Your task to perform on an android device: Open Wikipedia Image 0: 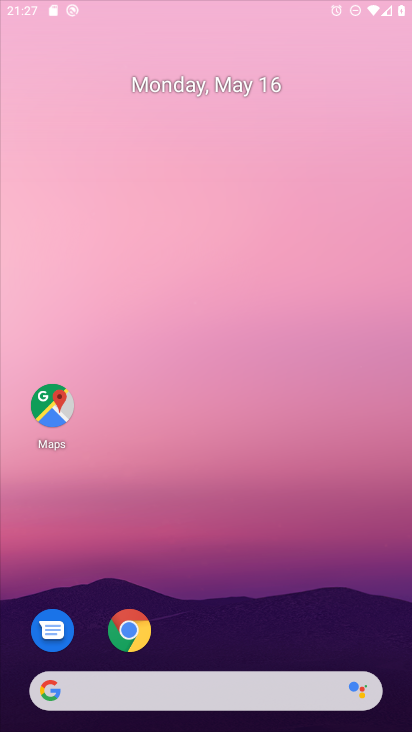
Step 0: click (326, 244)
Your task to perform on an android device: Open Wikipedia Image 1: 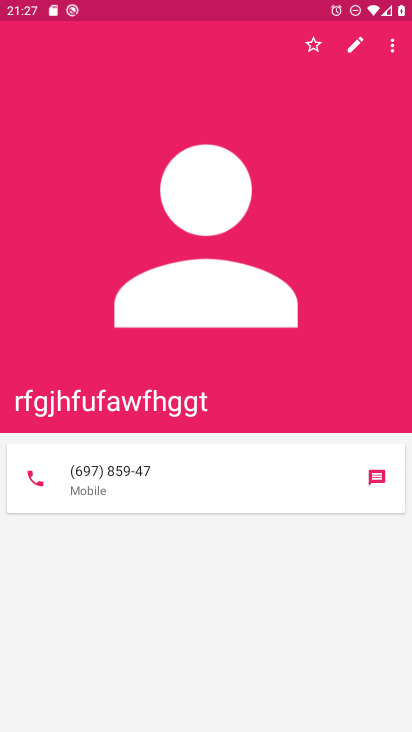
Step 1: press home button
Your task to perform on an android device: Open Wikipedia Image 2: 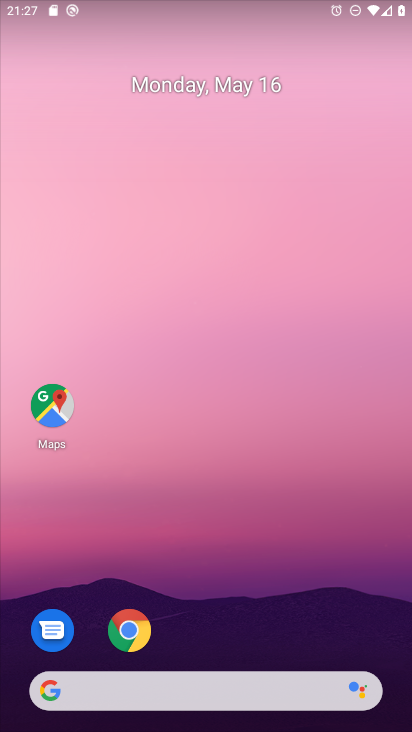
Step 2: click (126, 625)
Your task to perform on an android device: Open Wikipedia Image 3: 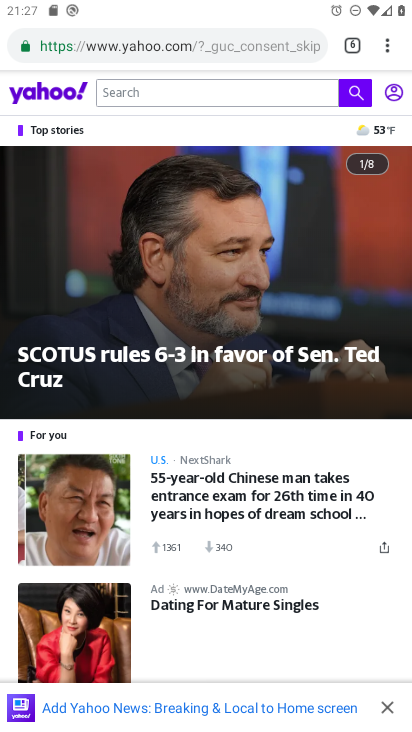
Step 3: click (347, 43)
Your task to perform on an android device: Open Wikipedia Image 4: 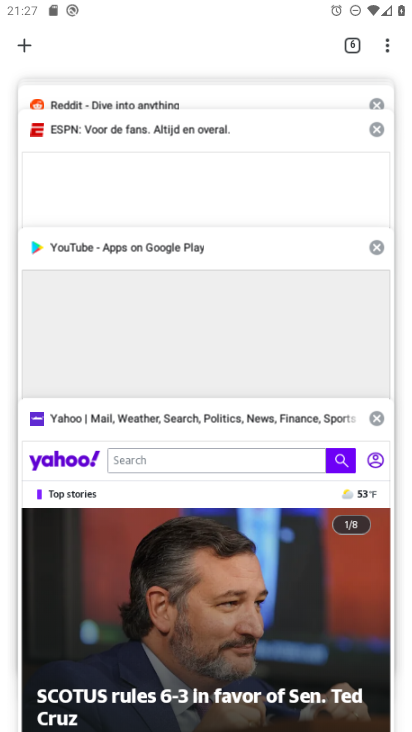
Step 4: drag from (218, 165) to (148, 593)
Your task to perform on an android device: Open Wikipedia Image 5: 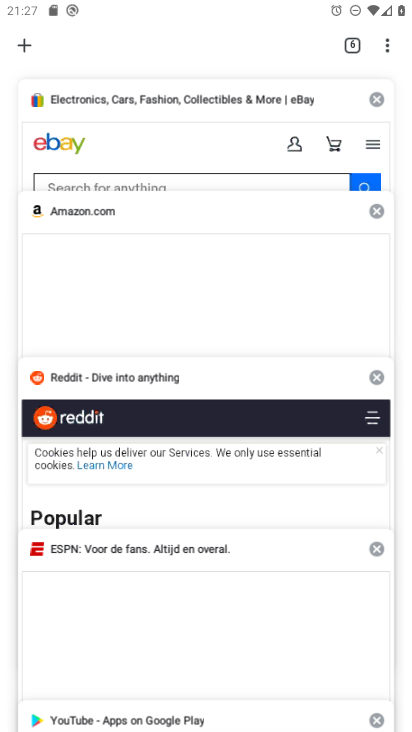
Step 5: drag from (183, 194) to (142, 621)
Your task to perform on an android device: Open Wikipedia Image 6: 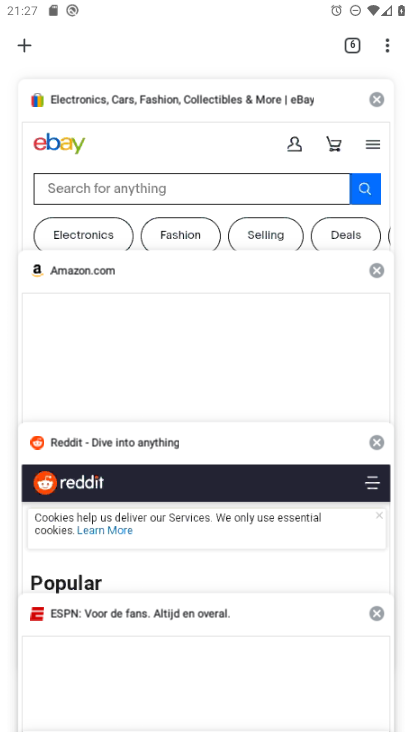
Step 6: drag from (222, 49) to (182, 414)
Your task to perform on an android device: Open Wikipedia Image 7: 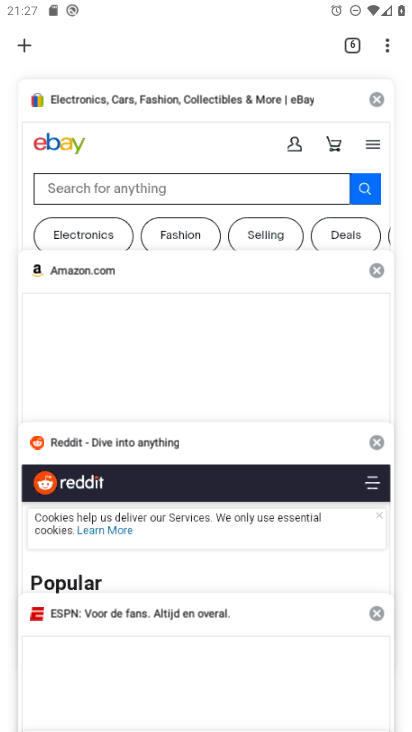
Step 7: click (18, 38)
Your task to perform on an android device: Open Wikipedia Image 8: 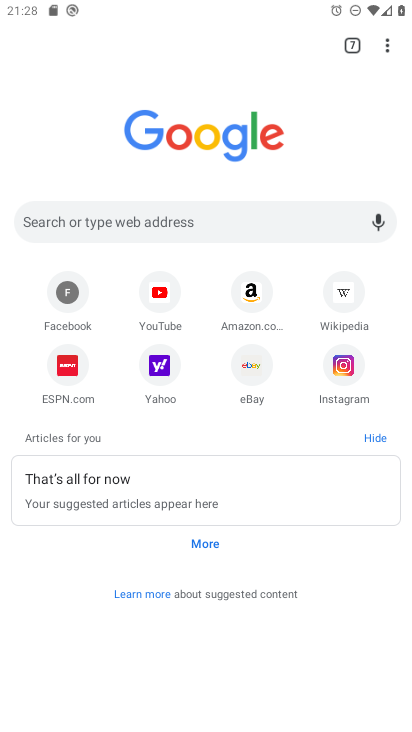
Step 8: click (339, 289)
Your task to perform on an android device: Open Wikipedia Image 9: 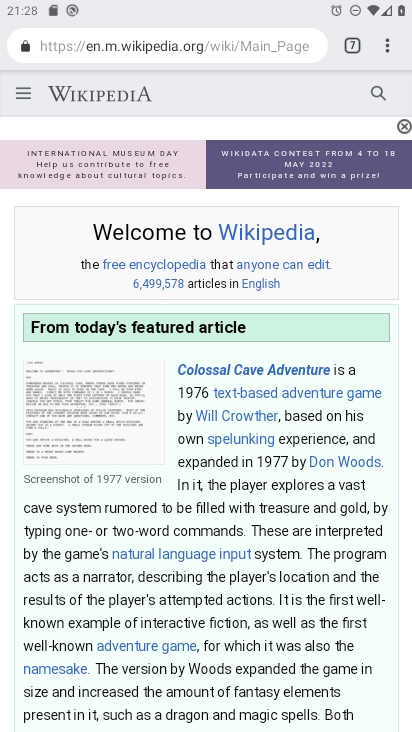
Step 9: task complete